Your task to perform on an android device: Set the phone to "Do not disturb". Image 0: 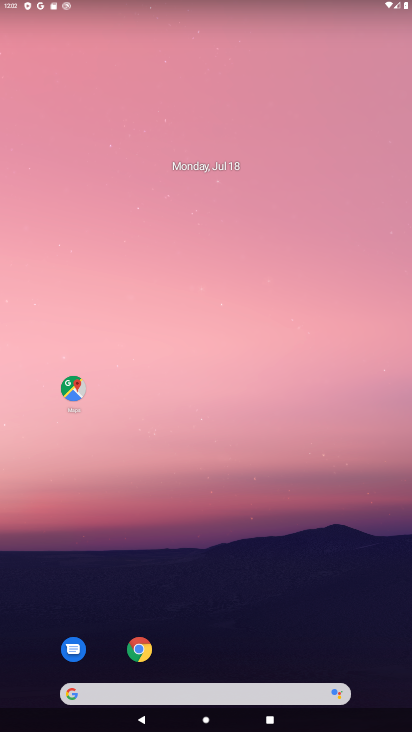
Step 0: drag from (110, 7) to (225, 559)
Your task to perform on an android device: Set the phone to "Do not disturb". Image 1: 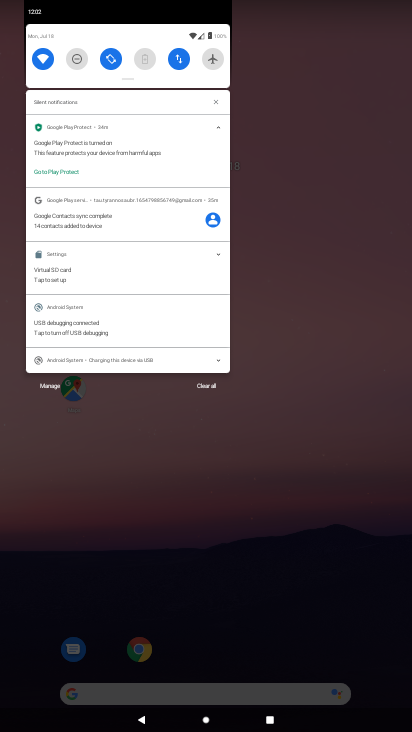
Step 1: click (78, 59)
Your task to perform on an android device: Set the phone to "Do not disturb". Image 2: 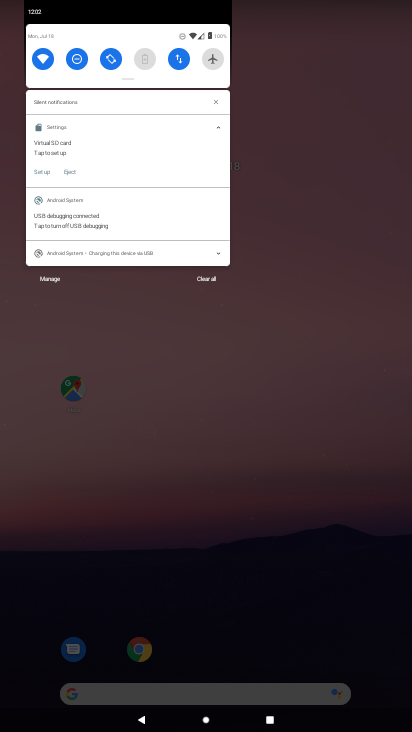
Step 2: task complete